Your task to perform on an android device: Go to sound settings Image 0: 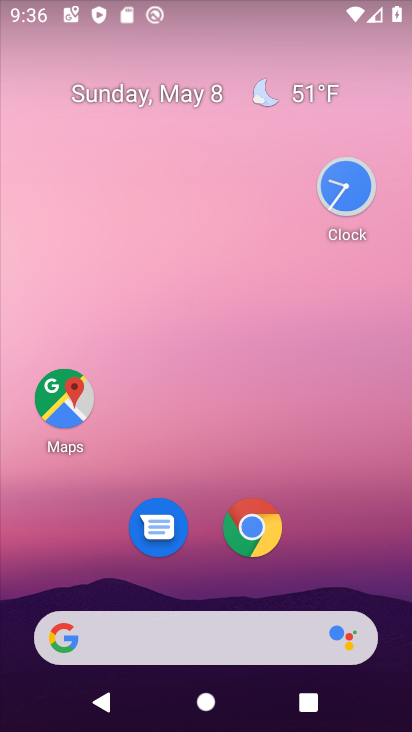
Step 0: drag from (199, 671) to (247, 133)
Your task to perform on an android device: Go to sound settings Image 1: 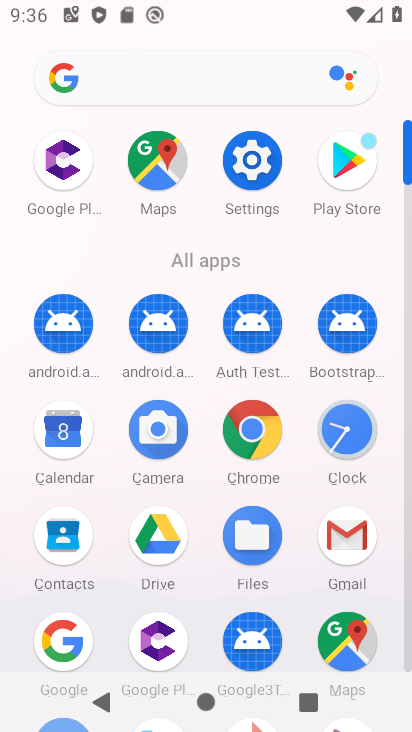
Step 1: click (252, 160)
Your task to perform on an android device: Go to sound settings Image 2: 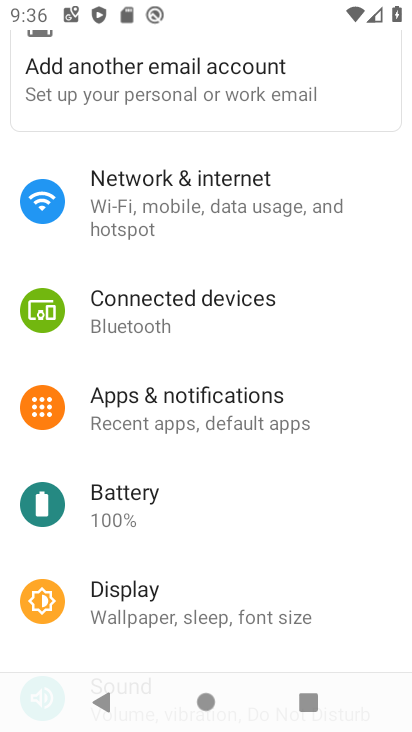
Step 2: drag from (23, 705) to (38, 483)
Your task to perform on an android device: Go to sound settings Image 3: 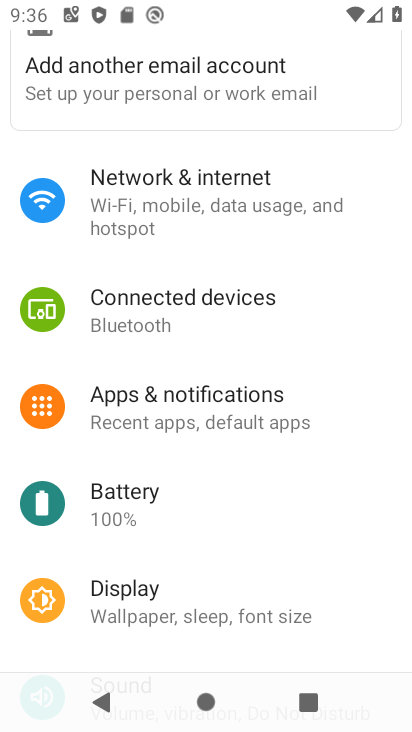
Step 3: drag from (122, 514) to (151, 313)
Your task to perform on an android device: Go to sound settings Image 4: 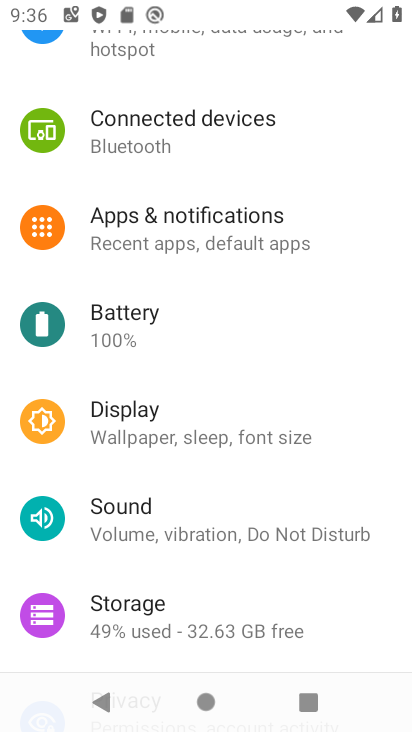
Step 4: click (196, 537)
Your task to perform on an android device: Go to sound settings Image 5: 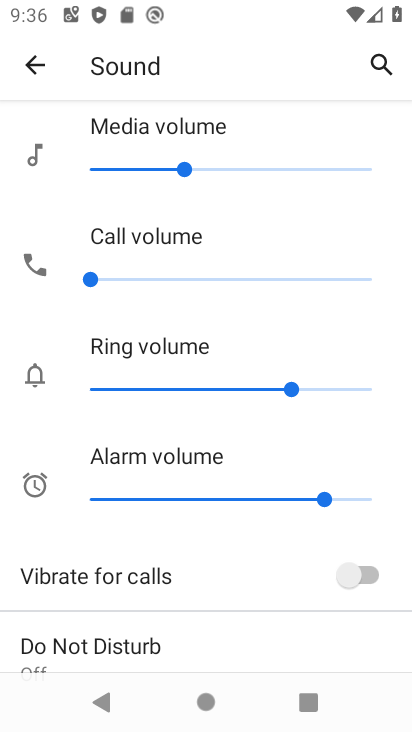
Step 5: task complete